Your task to perform on an android device: change notifications settings Image 0: 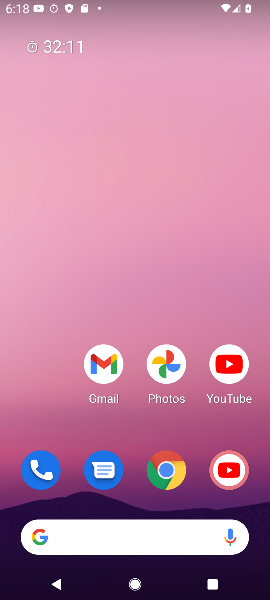
Step 0: press home button
Your task to perform on an android device: change notifications settings Image 1: 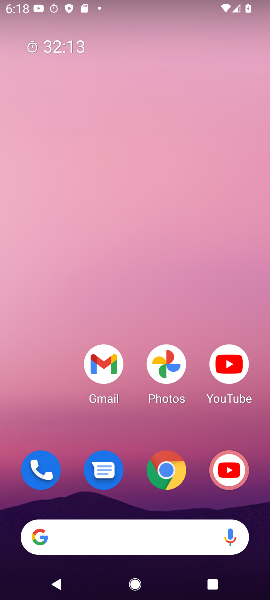
Step 1: drag from (163, 501) to (191, 52)
Your task to perform on an android device: change notifications settings Image 2: 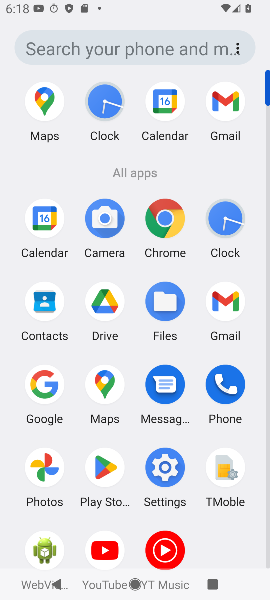
Step 2: click (155, 469)
Your task to perform on an android device: change notifications settings Image 3: 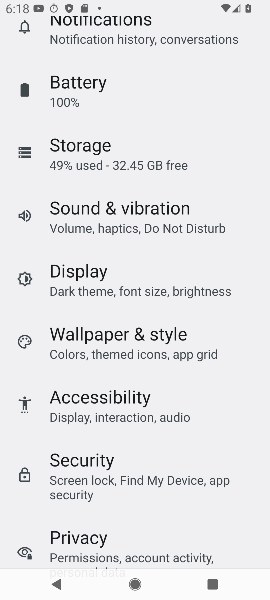
Step 3: drag from (119, 120) to (107, 406)
Your task to perform on an android device: change notifications settings Image 4: 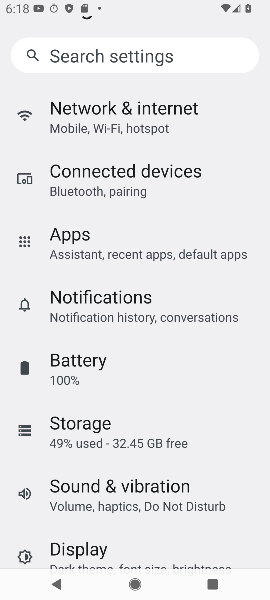
Step 4: click (107, 306)
Your task to perform on an android device: change notifications settings Image 5: 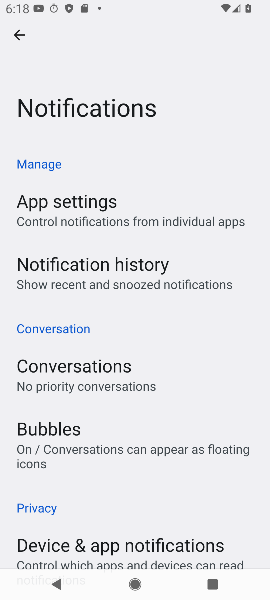
Step 5: task complete